Your task to perform on an android device: Search for Italian restaurants on Maps Image 0: 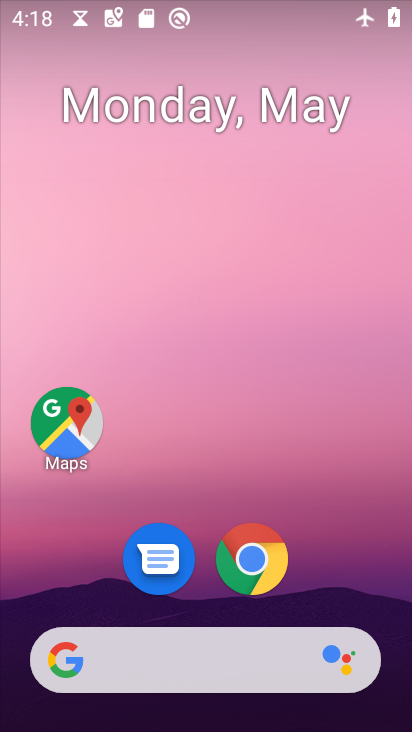
Step 0: drag from (324, 607) to (322, 0)
Your task to perform on an android device: Search for Italian restaurants on Maps Image 1: 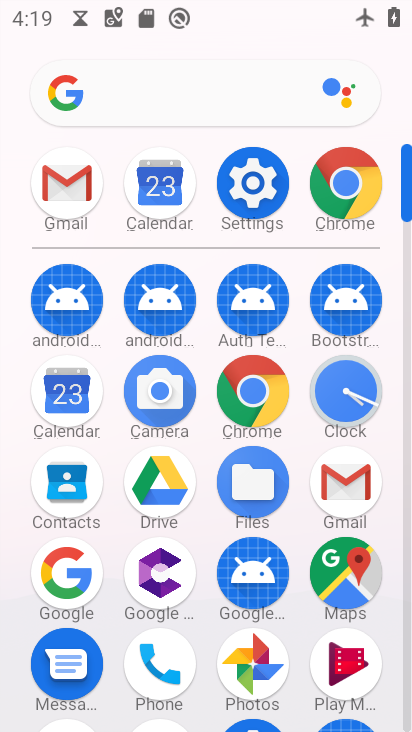
Step 1: click (347, 554)
Your task to perform on an android device: Search for Italian restaurants on Maps Image 2: 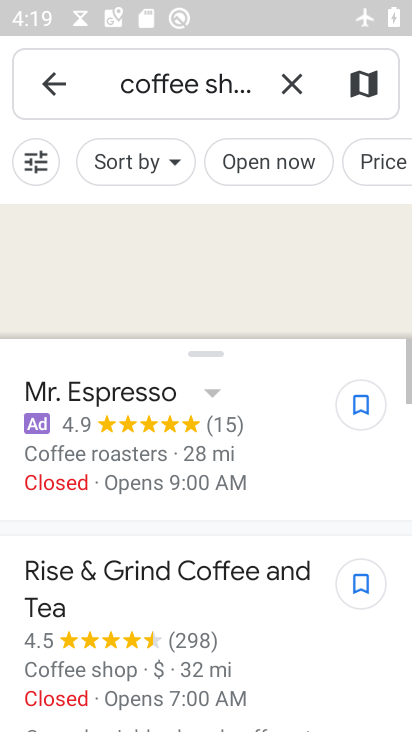
Step 2: click (288, 77)
Your task to perform on an android device: Search for Italian restaurants on Maps Image 3: 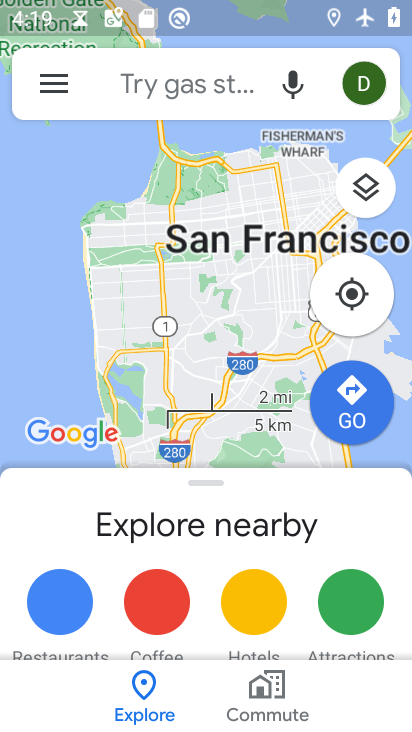
Step 3: click (199, 85)
Your task to perform on an android device: Search for Italian restaurants on Maps Image 4: 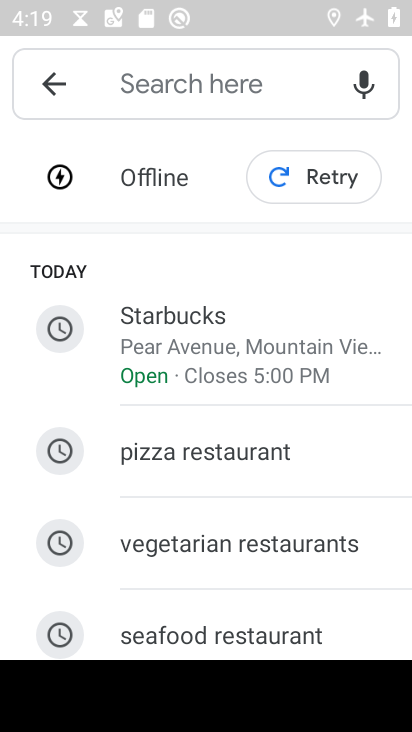
Step 4: drag from (197, 584) to (193, 168)
Your task to perform on an android device: Search for Italian restaurants on Maps Image 5: 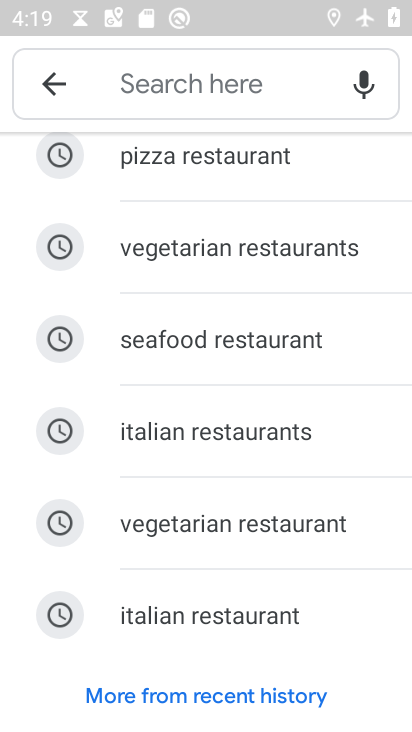
Step 5: click (179, 443)
Your task to perform on an android device: Search for Italian restaurants on Maps Image 6: 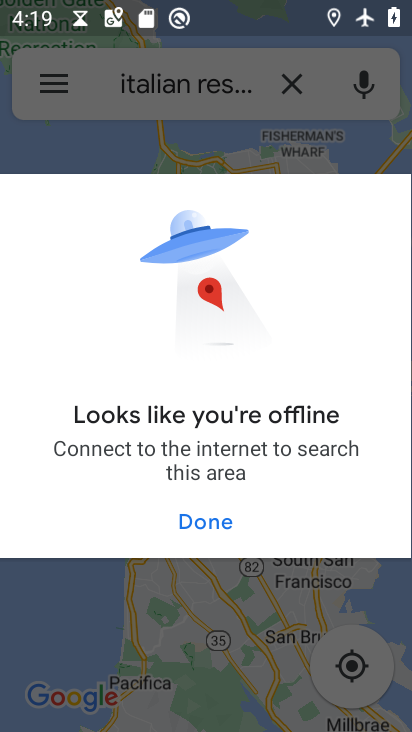
Step 6: press back button
Your task to perform on an android device: Search for Italian restaurants on Maps Image 7: 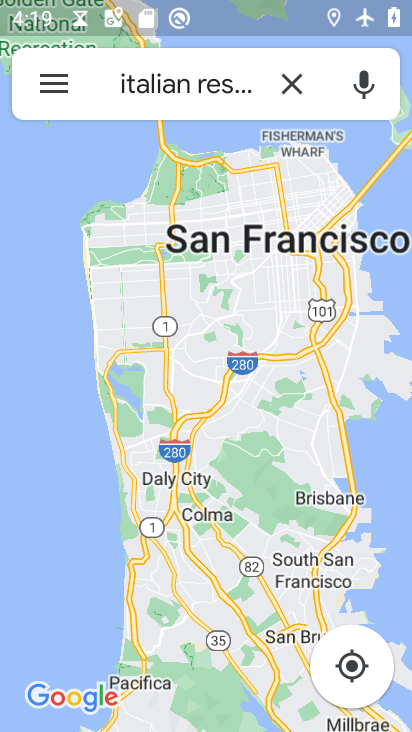
Step 7: press back button
Your task to perform on an android device: Search for Italian restaurants on Maps Image 8: 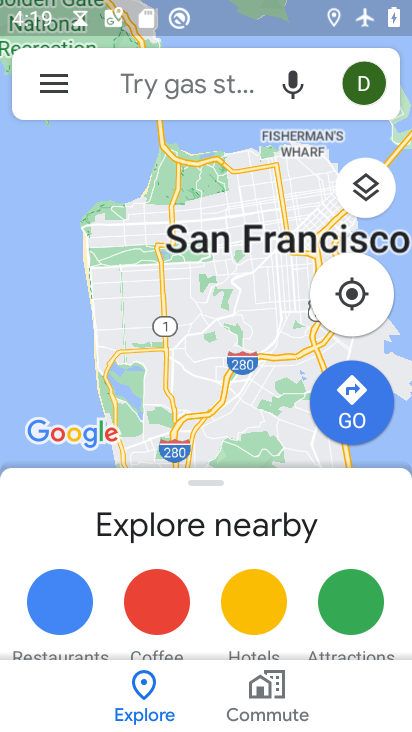
Step 8: press back button
Your task to perform on an android device: Search for Italian restaurants on Maps Image 9: 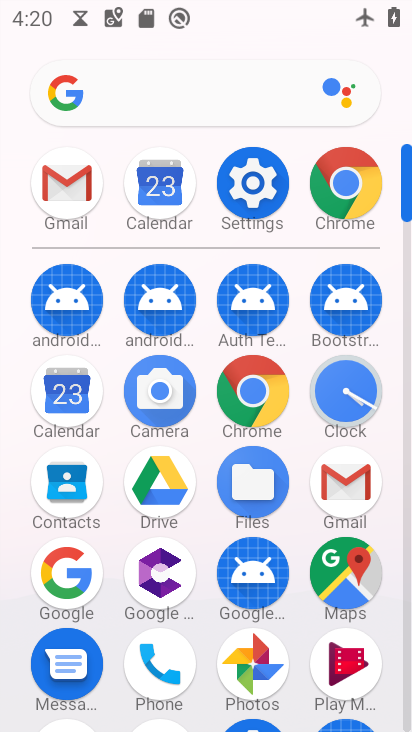
Step 9: click (249, 177)
Your task to perform on an android device: Search for Italian restaurants on Maps Image 10: 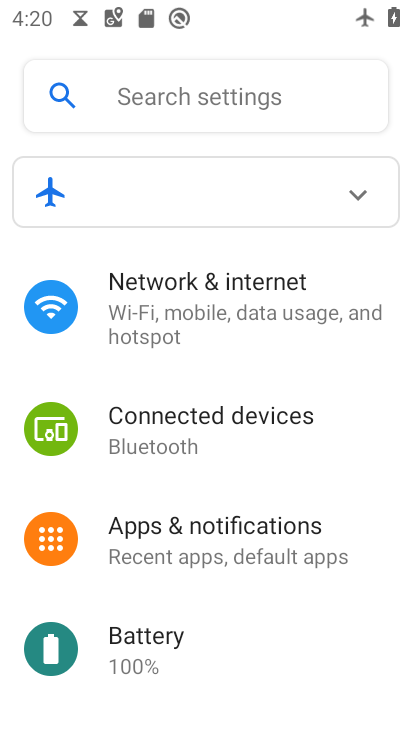
Step 10: click (364, 201)
Your task to perform on an android device: Search for Italian restaurants on Maps Image 11: 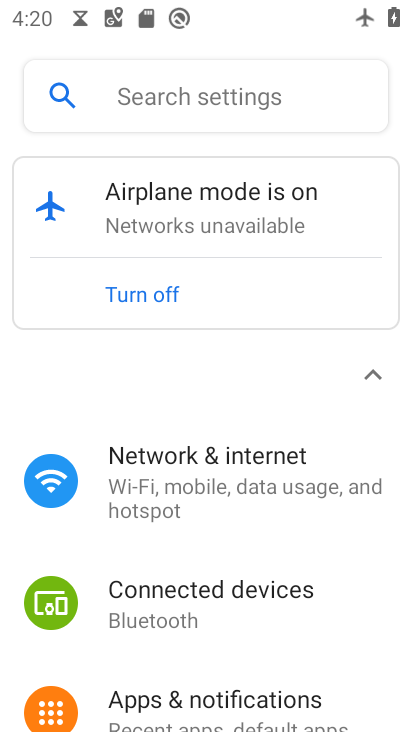
Step 11: click (170, 306)
Your task to perform on an android device: Search for Italian restaurants on Maps Image 12: 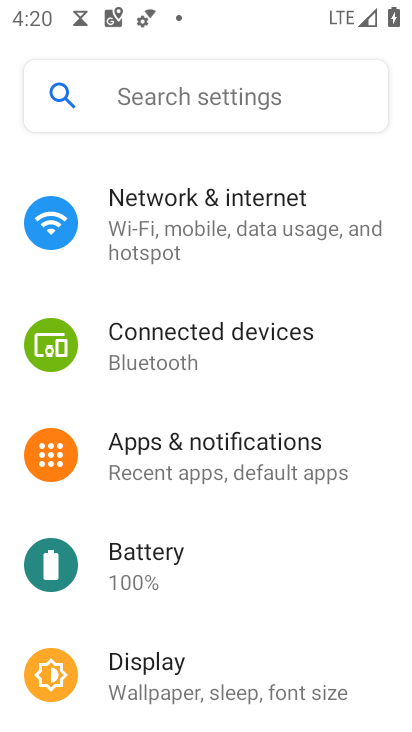
Step 12: drag from (260, 642) to (199, 169)
Your task to perform on an android device: Search for Italian restaurants on Maps Image 13: 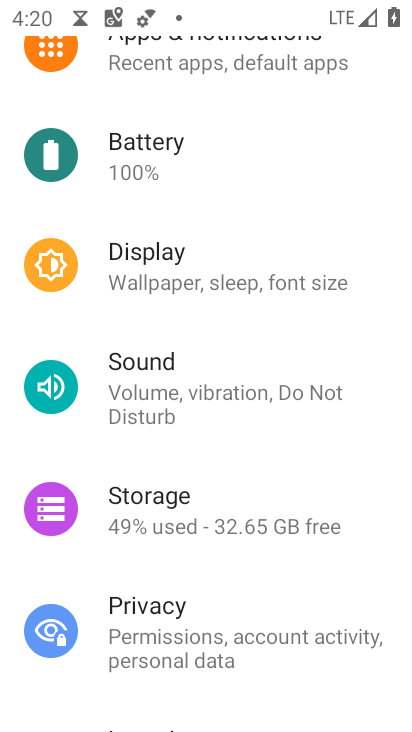
Step 13: drag from (293, 613) to (237, 171)
Your task to perform on an android device: Search for Italian restaurants on Maps Image 14: 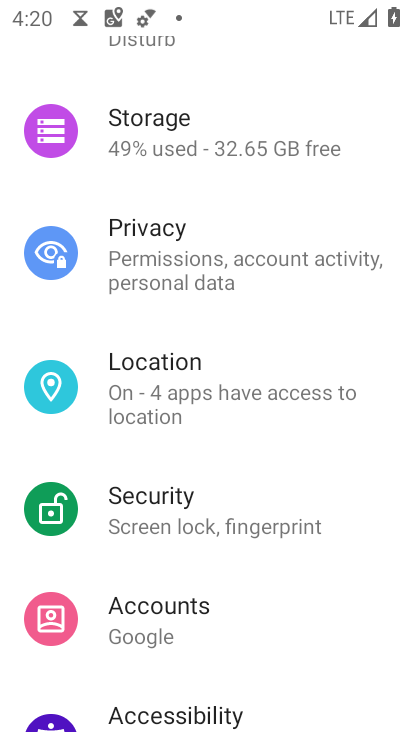
Step 14: drag from (291, 639) to (236, 161)
Your task to perform on an android device: Search for Italian restaurants on Maps Image 15: 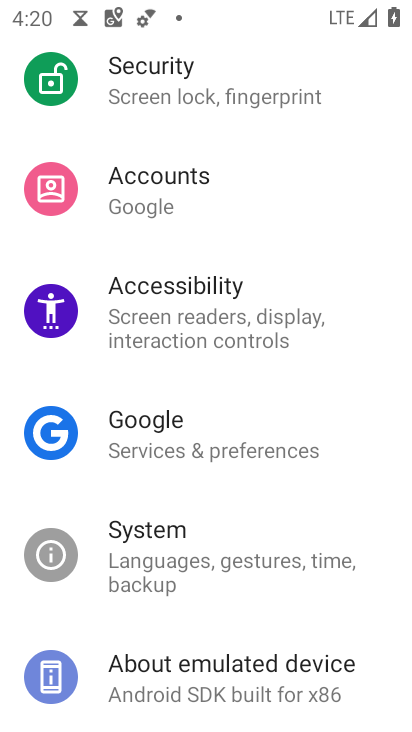
Step 15: press home button
Your task to perform on an android device: Search for Italian restaurants on Maps Image 16: 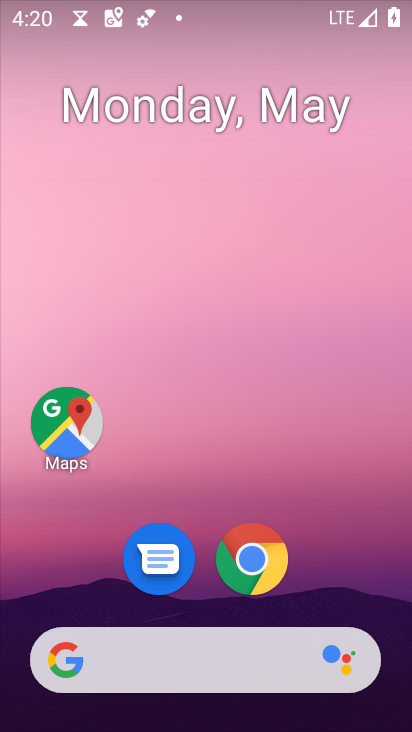
Step 16: click (82, 417)
Your task to perform on an android device: Search for Italian restaurants on Maps Image 17: 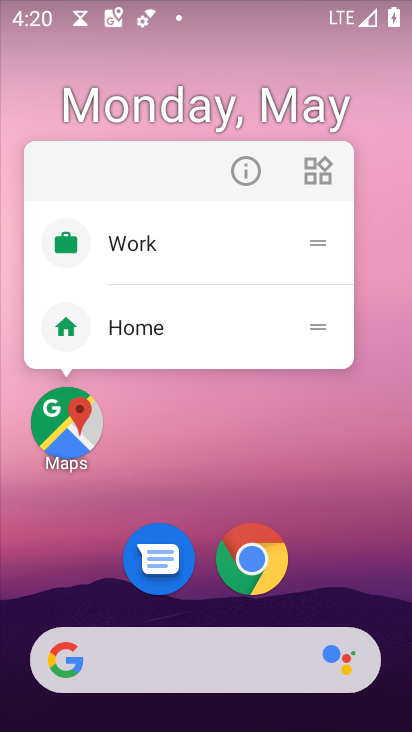
Step 17: click (71, 427)
Your task to perform on an android device: Search for Italian restaurants on Maps Image 18: 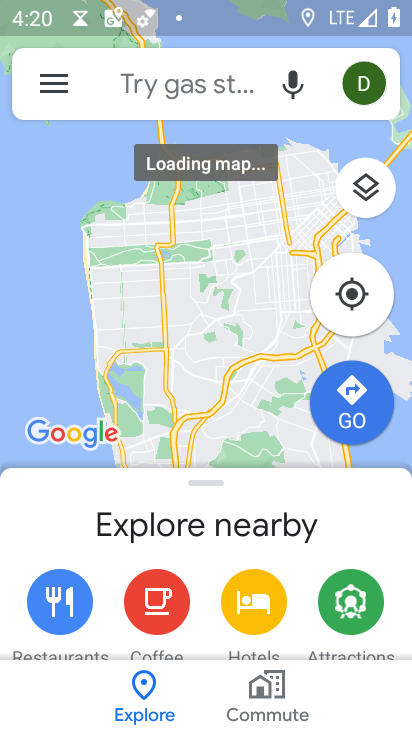
Step 18: click (193, 89)
Your task to perform on an android device: Search for Italian restaurants on Maps Image 19: 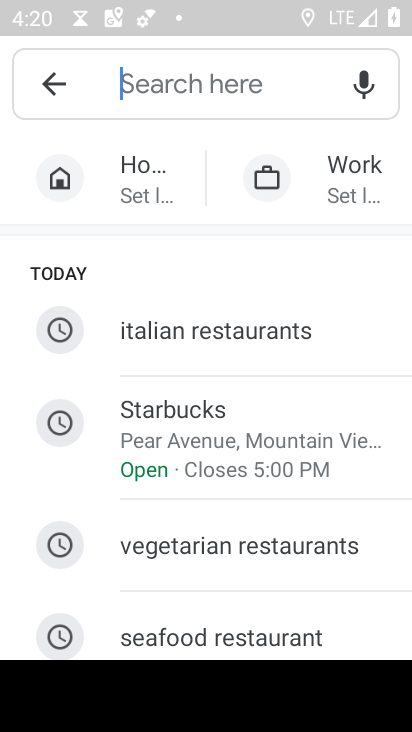
Step 19: click (221, 344)
Your task to perform on an android device: Search for Italian restaurants on Maps Image 20: 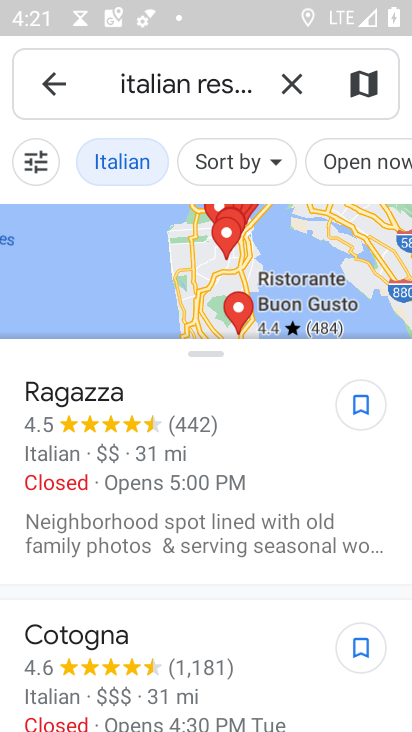
Step 20: task complete